Your task to perform on an android device: turn on location history Image 0: 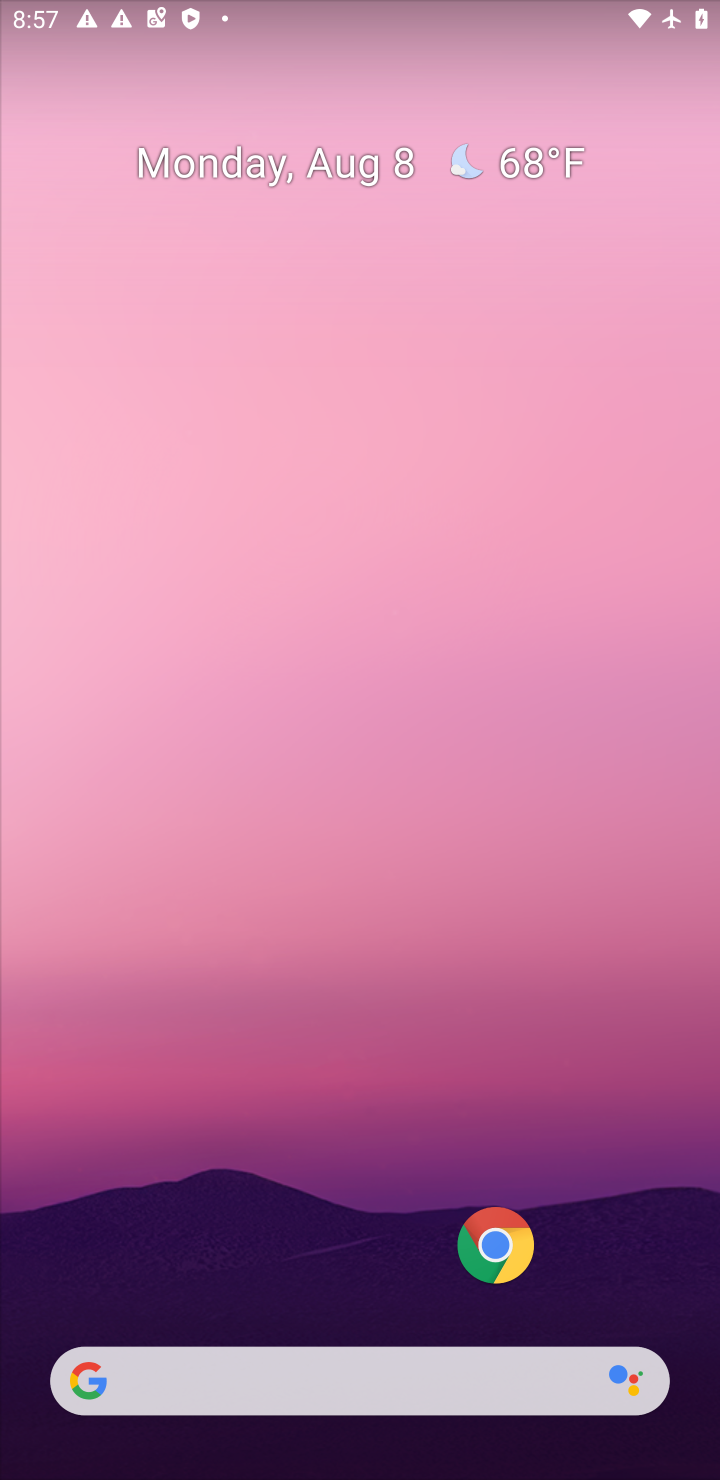
Step 0: drag from (311, 1129) to (398, 285)
Your task to perform on an android device: turn on location history Image 1: 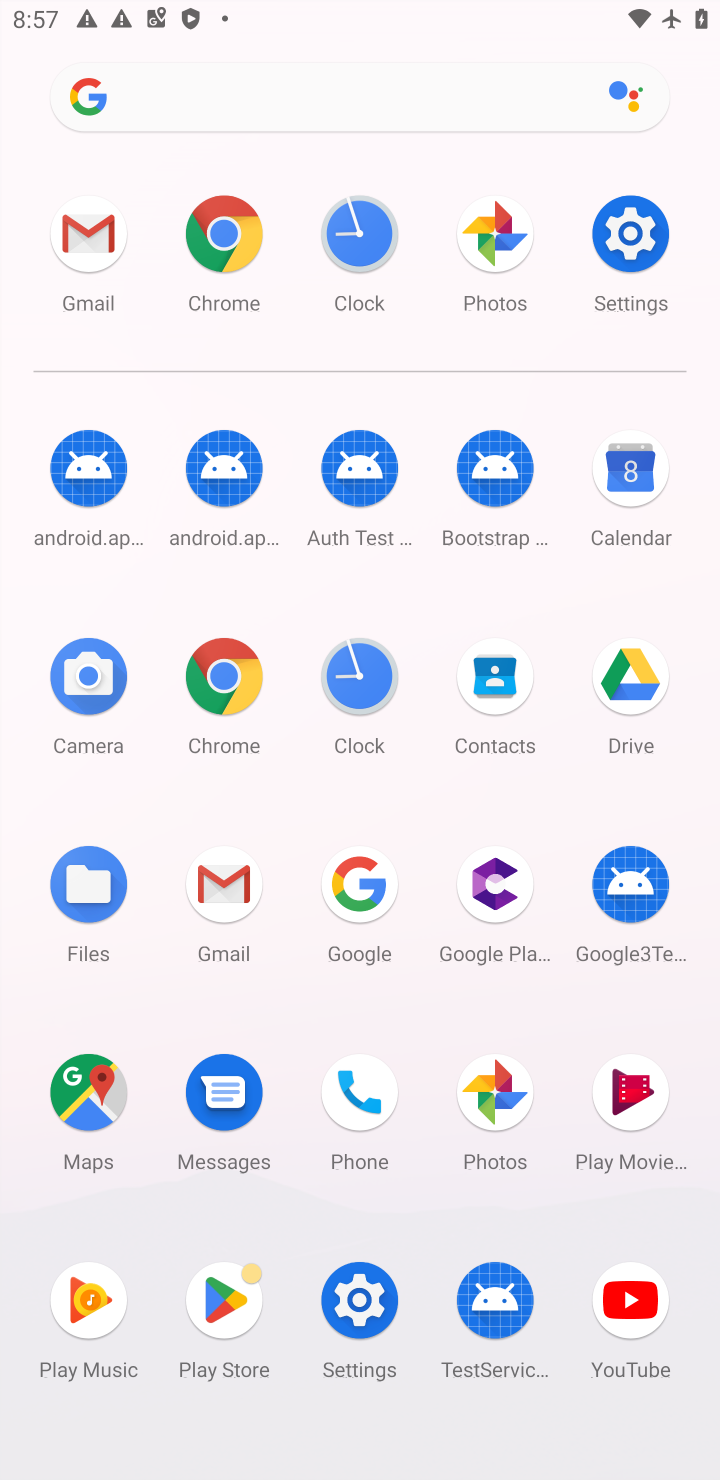
Step 1: click (363, 1309)
Your task to perform on an android device: turn on location history Image 2: 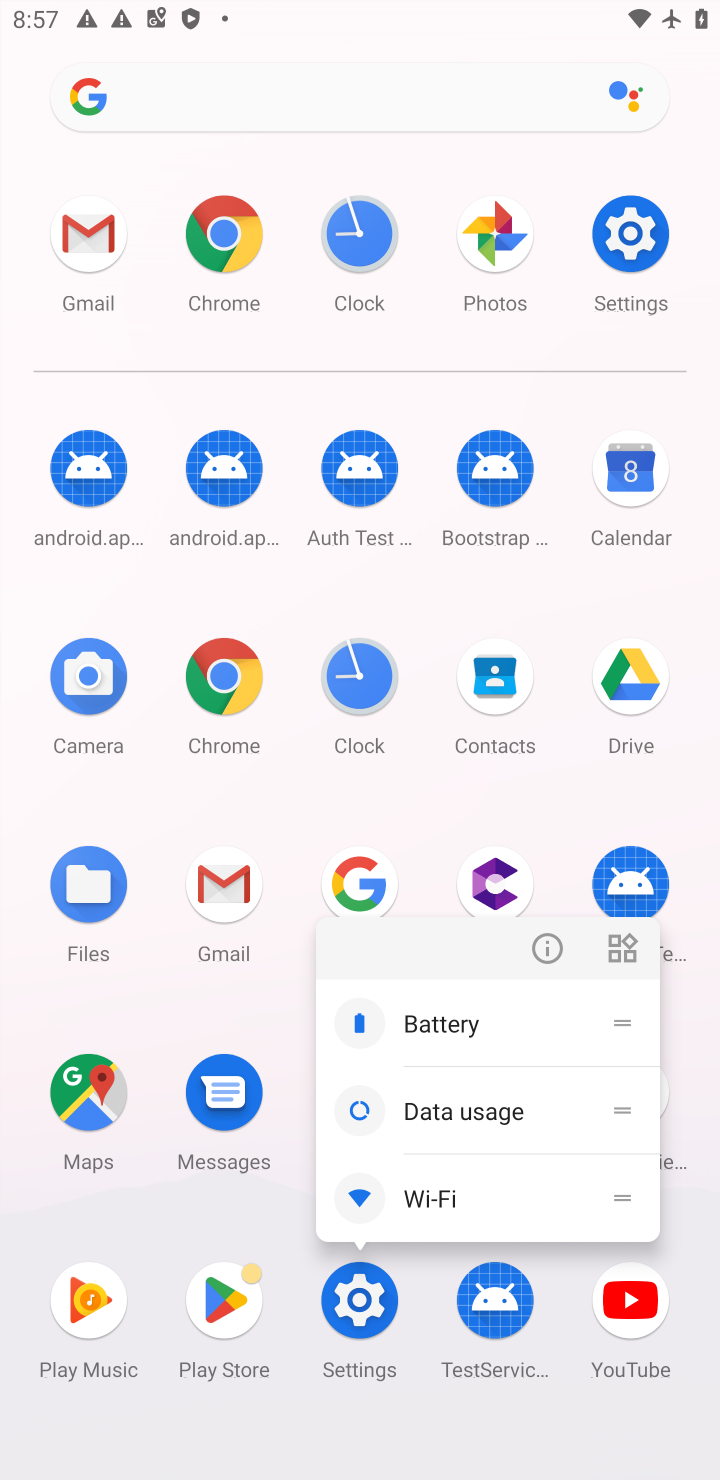
Step 2: click (361, 1311)
Your task to perform on an android device: turn on location history Image 3: 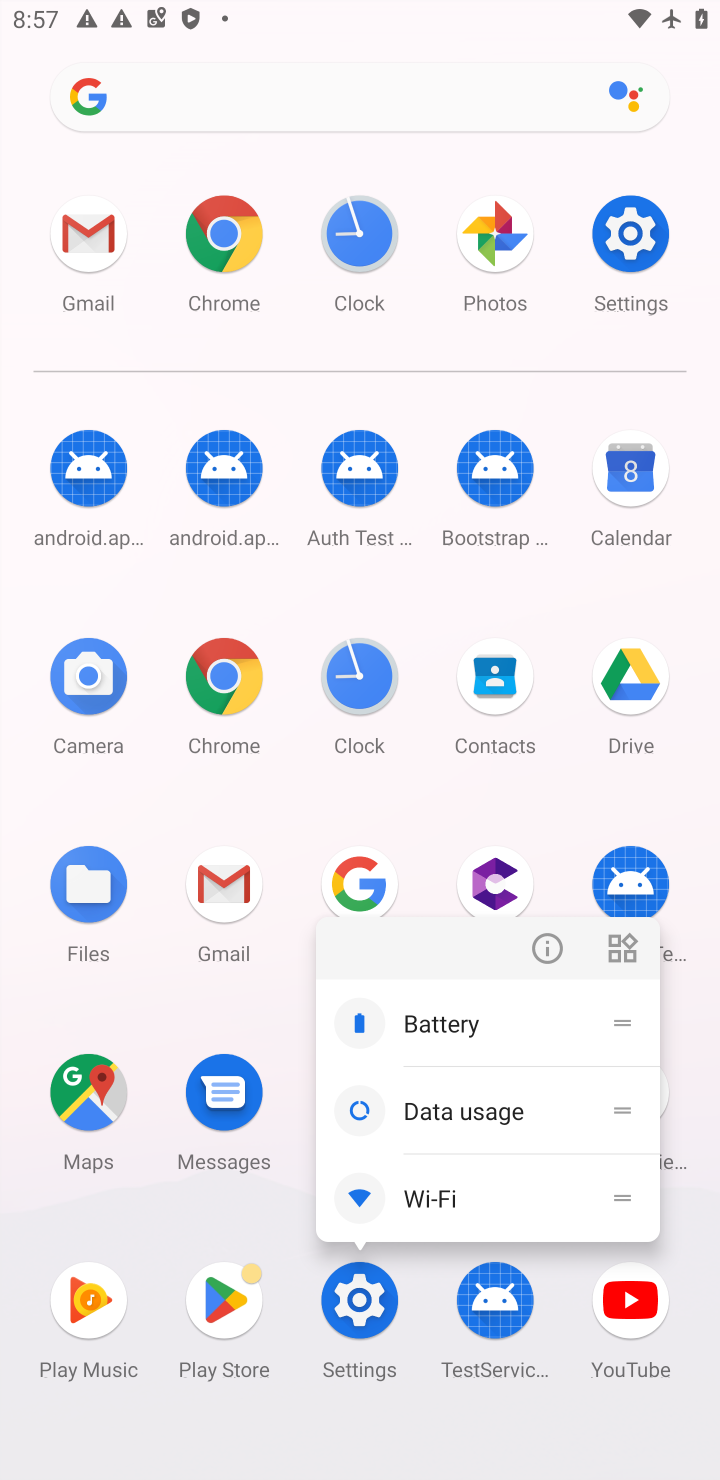
Step 3: click (345, 1305)
Your task to perform on an android device: turn on location history Image 4: 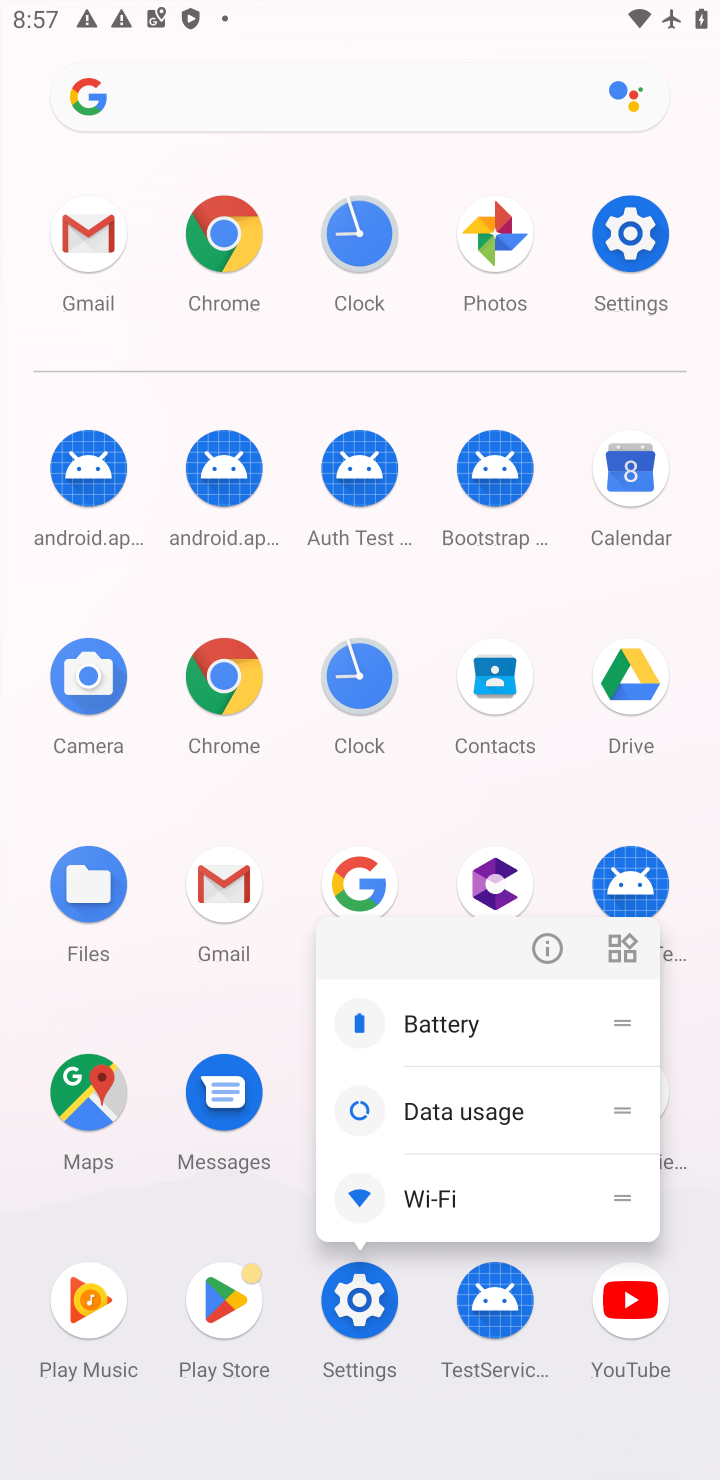
Step 4: click (353, 1297)
Your task to perform on an android device: turn on location history Image 5: 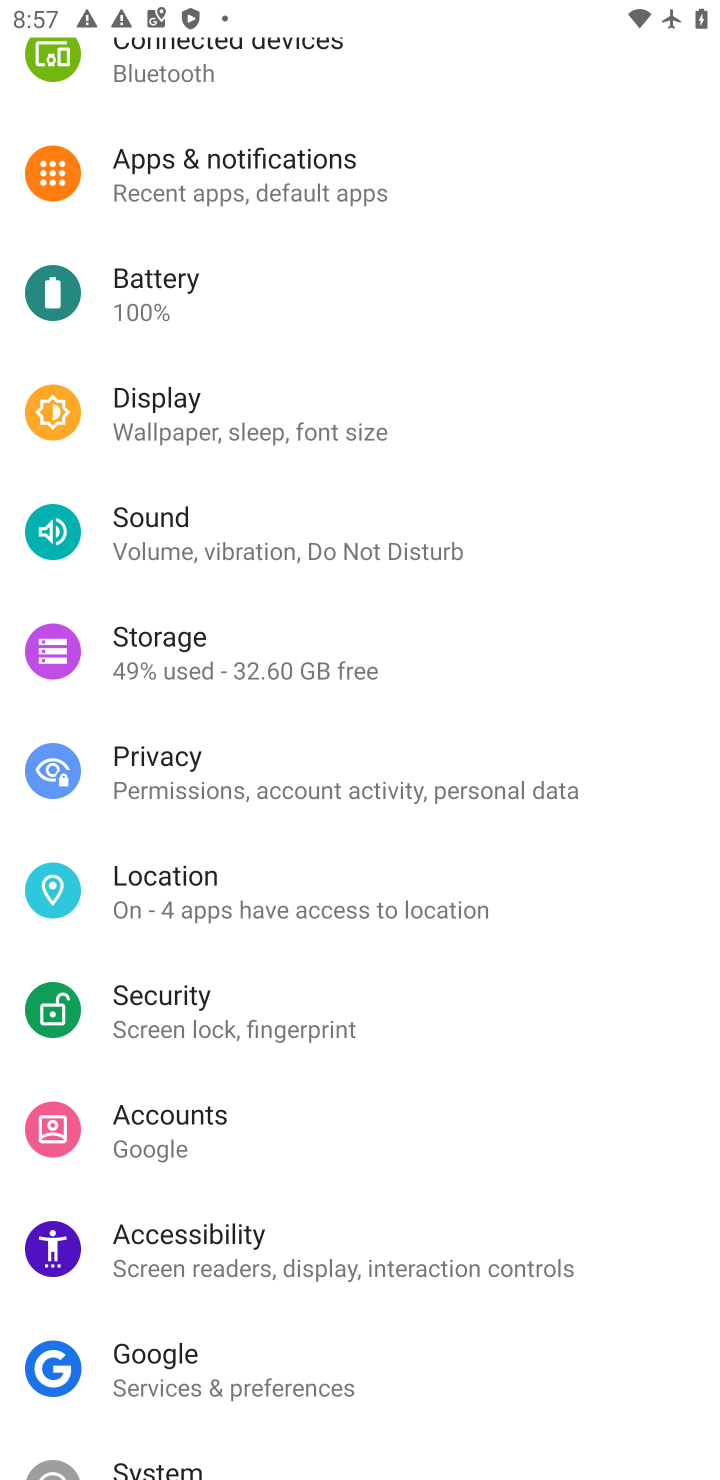
Step 5: click (258, 910)
Your task to perform on an android device: turn on location history Image 6: 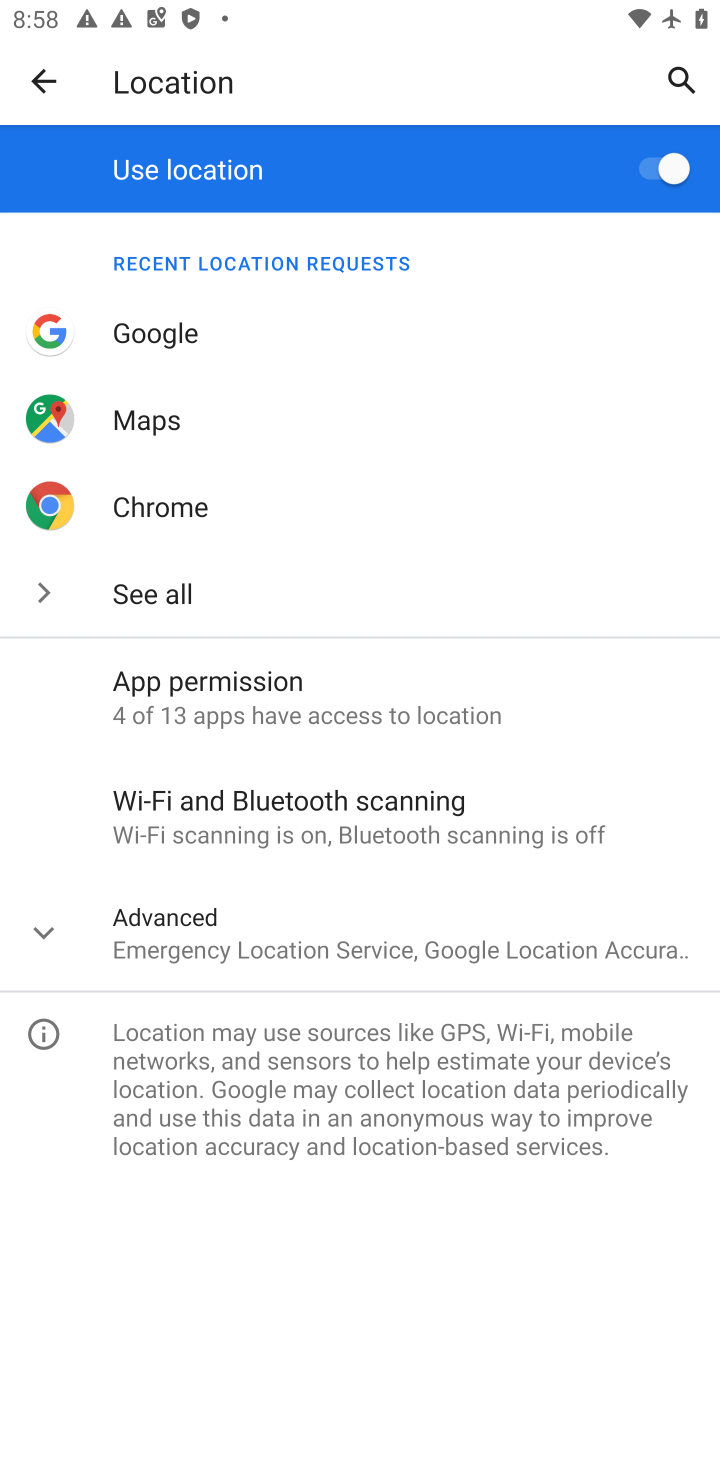
Step 6: click (178, 942)
Your task to perform on an android device: turn on location history Image 7: 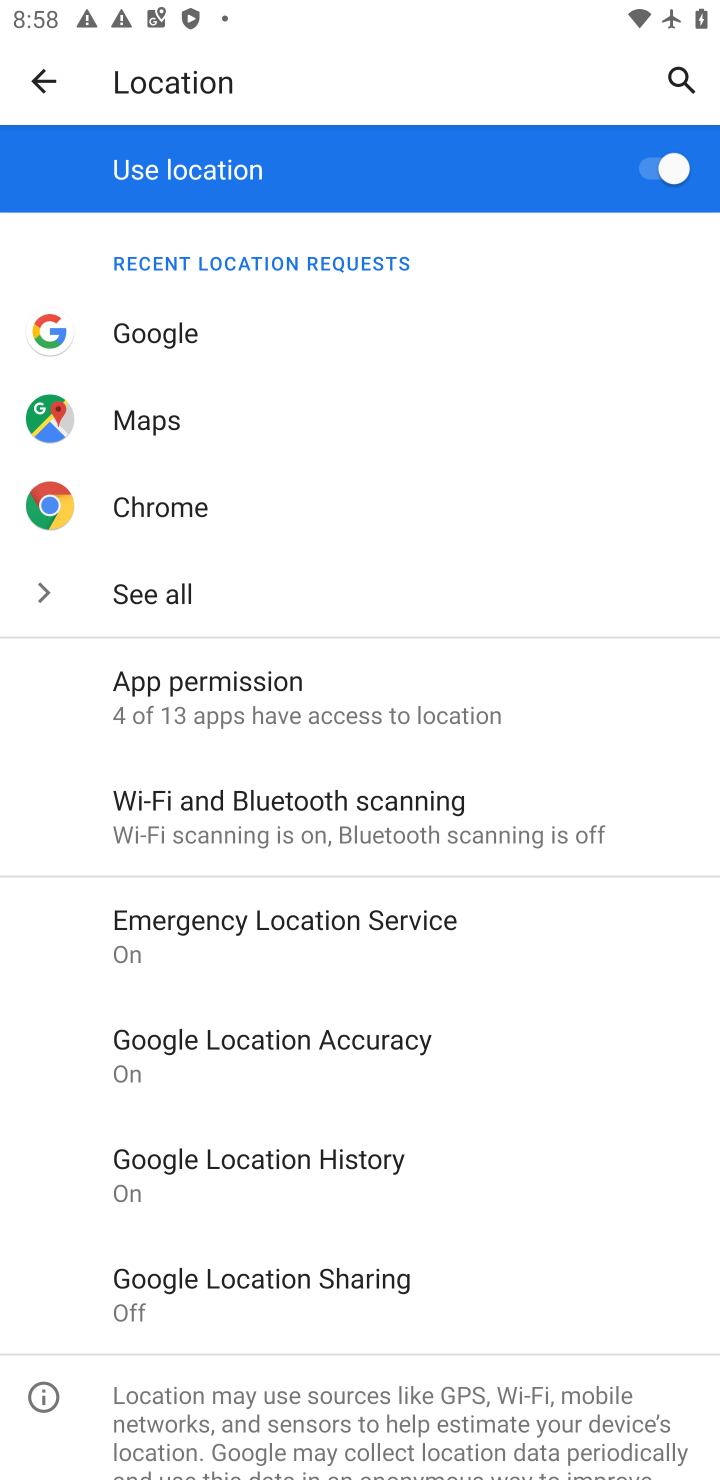
Step 7: click (264, 1170)
Your task to perform on an android device: turn on location history Image 8: 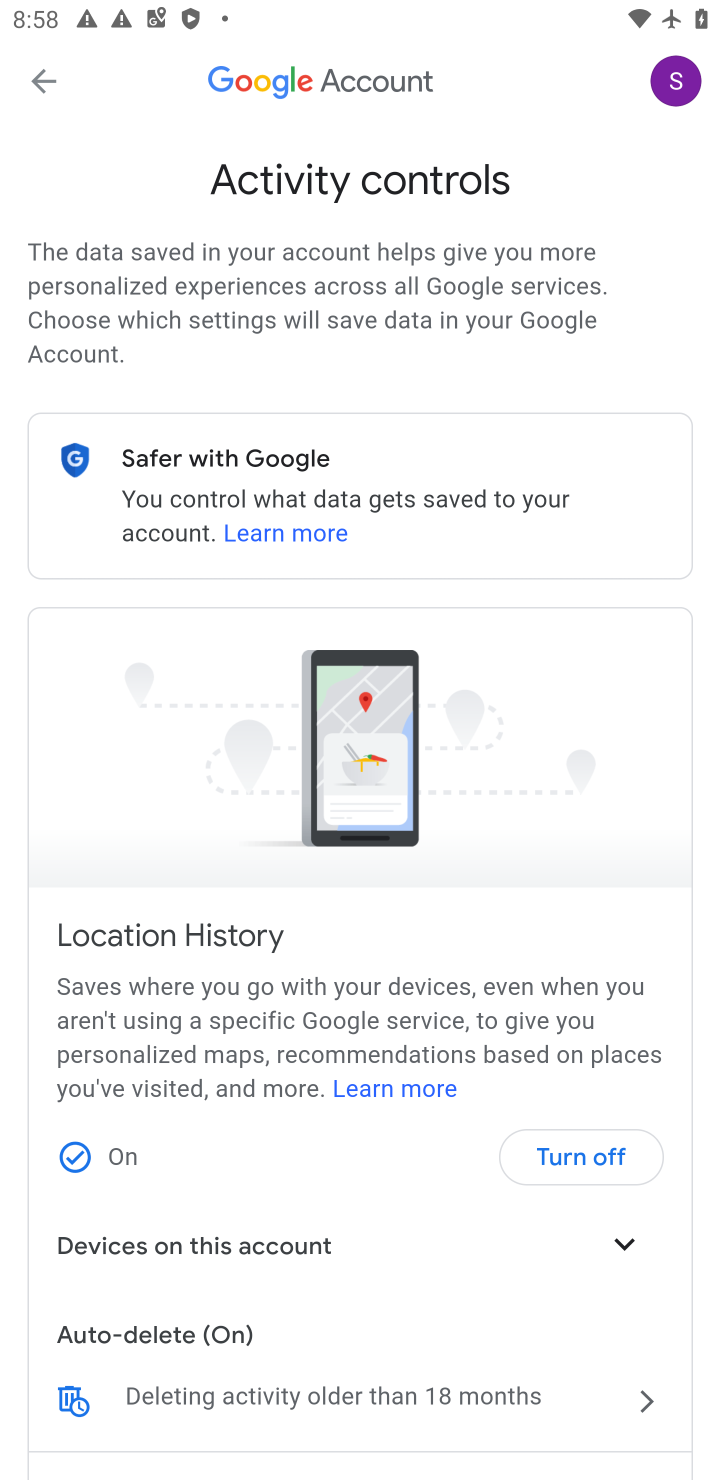
Step 8: task complete